Your task to perform on an android device: move a message to another label in the gmail app Image 0: 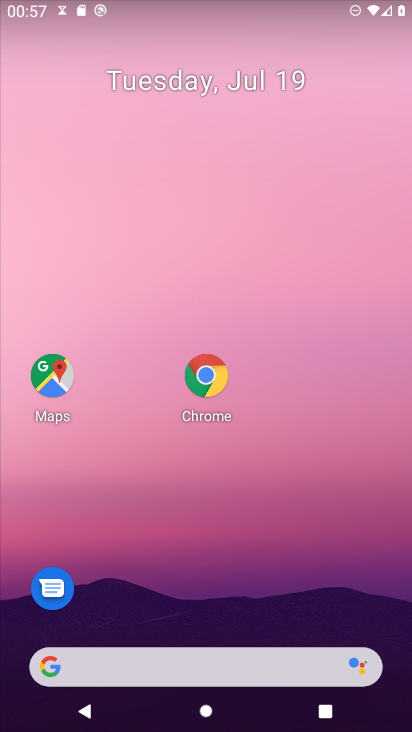
Step 0: press home button
Your task to perform on an android device: move a message to another label in the gmail app Image 1: 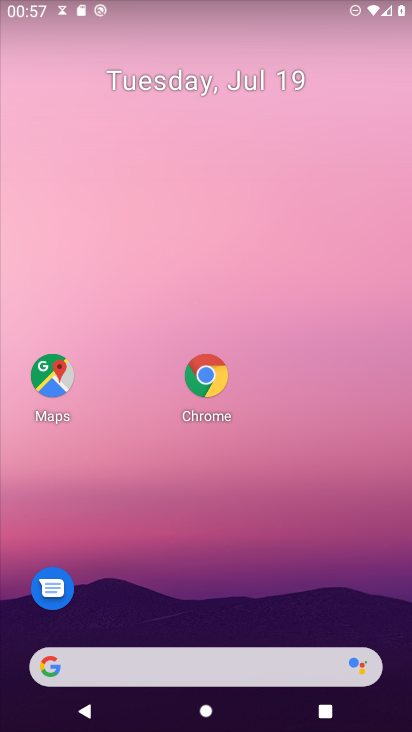
Step 1: drag from (328, 581) to (281, 78)
Your task to perform on an android device: move a message to another label in the gmail app Image 2: 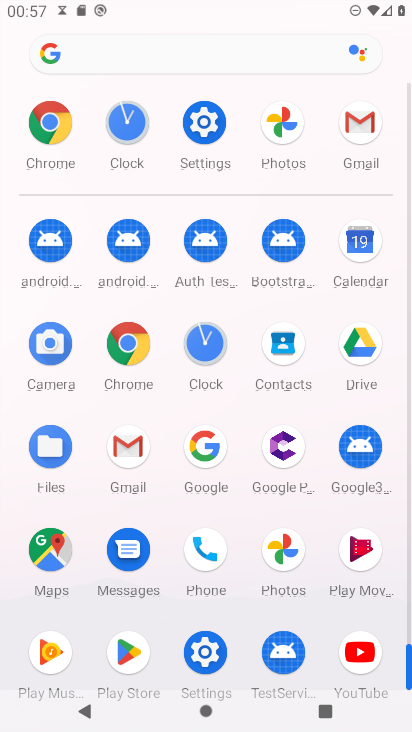
Step 2: click (357, 117)
Your task to perform on an android device: move a message to another label in the gmail app Image 3: 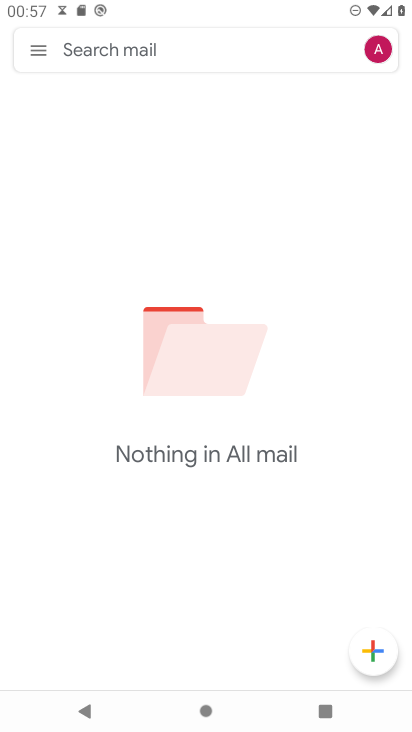
Step 3: click (37, 49)
Your task to perform on an android device: move a message to another label in the gmail app Image 4: 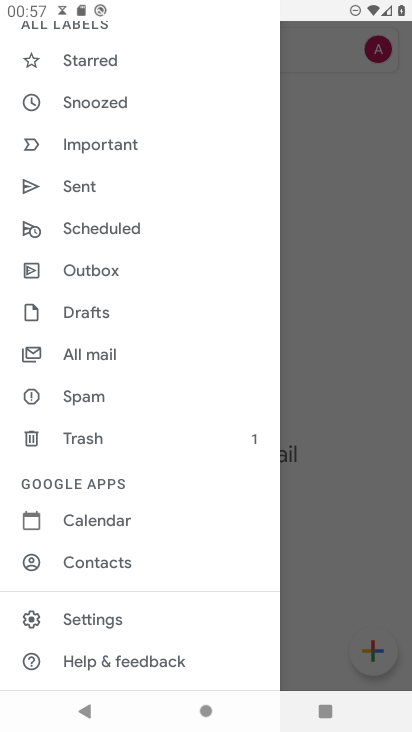
Step 4: click (98, 350)
Your task to perform on an android device: move a message to another label in the gmail app Image 5: 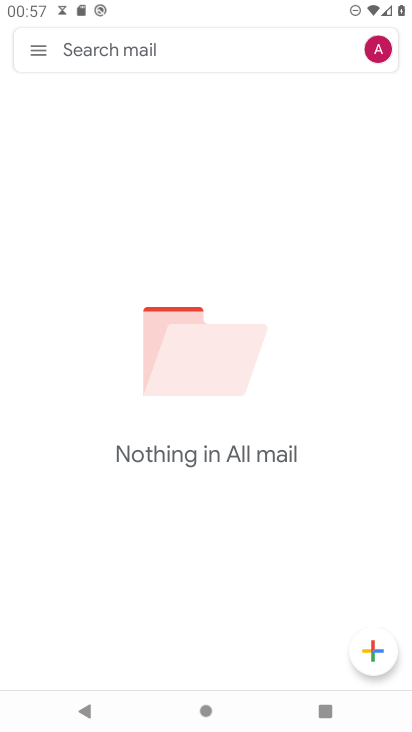
Step 5: task complete